Your task to perform on an android device: What's the weather? Image 0: 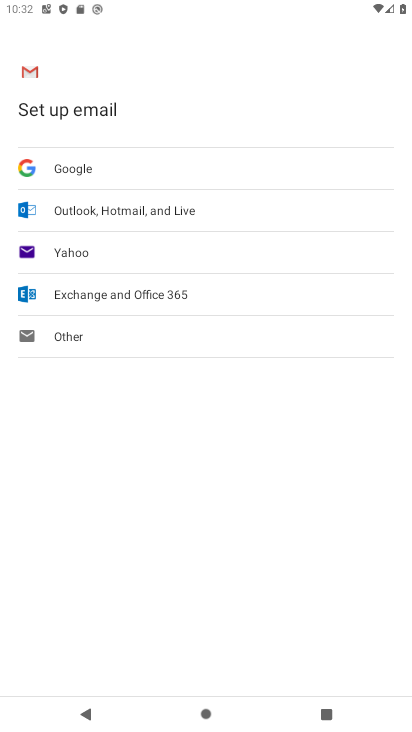
Step 0: press home button
Your task to perform on an android device: What's the weather? Image 1: 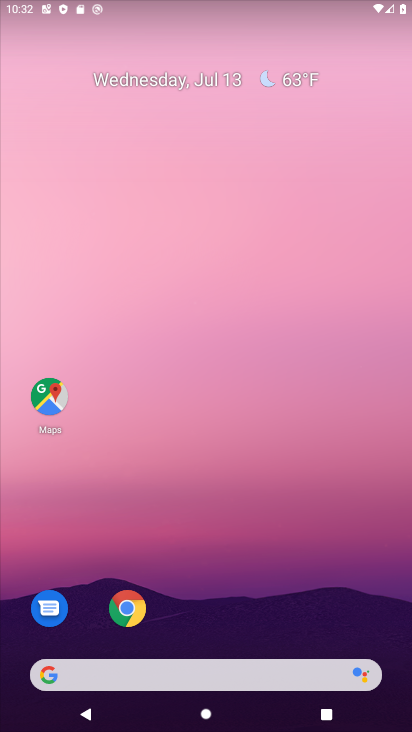
Step 1: drag from (314, 634) to (411, 188)
Your task to perform on an android device: What's the weather? Image 2: 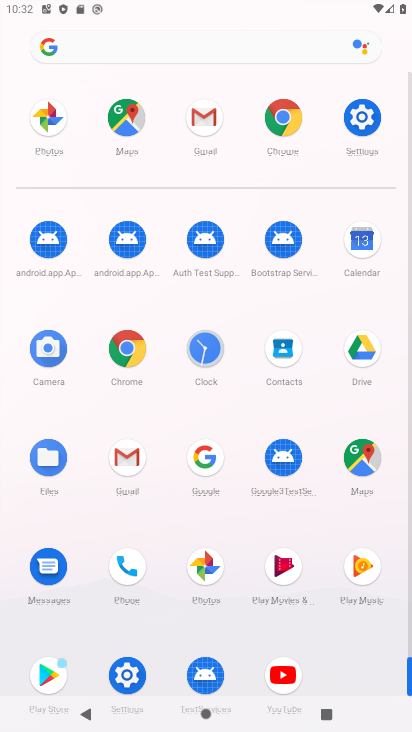
Step 2: click (139, 123)
Your task to perform on an android device: What's the weather? Image 3: 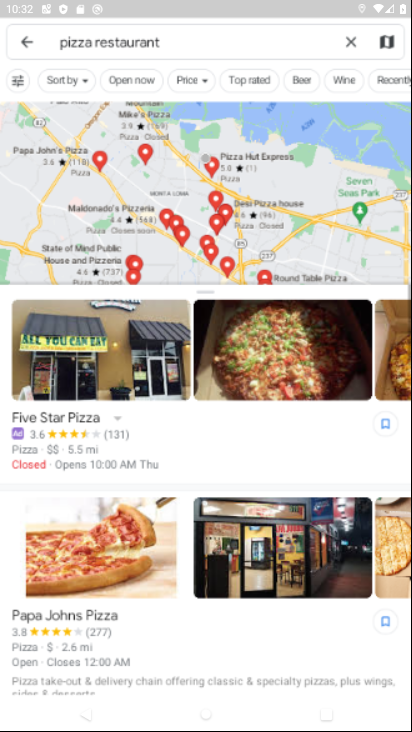
Step 3: press back button
Your task to perform on an android device: What's the weather? Image 4: 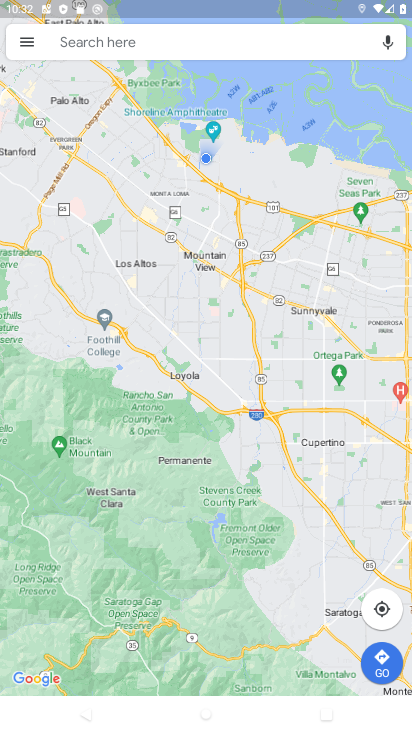
Step 4: press back button
Your task to perform on an android device: What's the weather? Image 5: 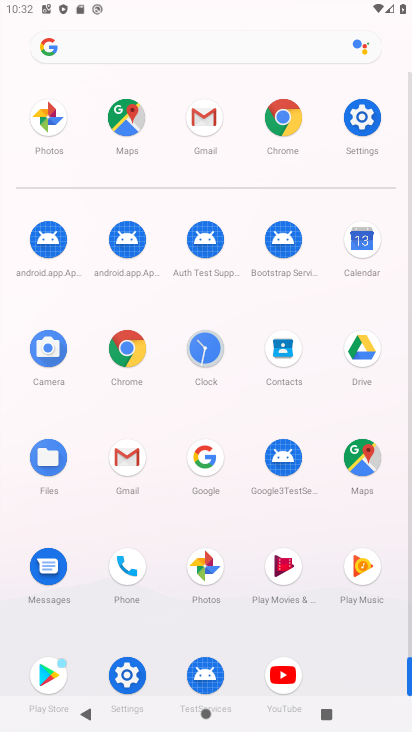
Step 5: click (139, 344)
Your task to perform on an android device: What's the weather? Image 6: 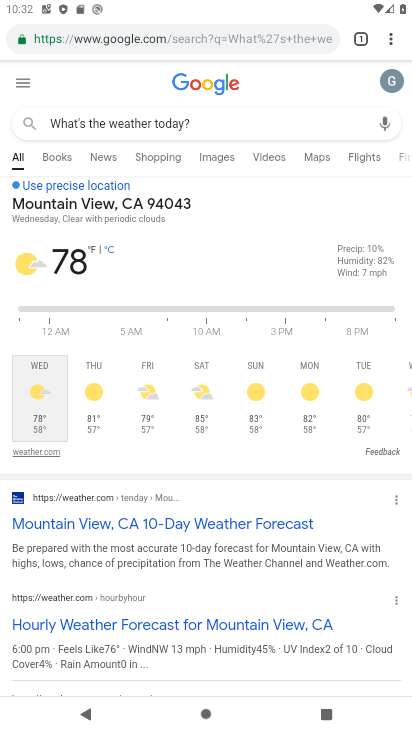
Step 6: click (287, 39)
Your task to perform on an android device: What's the weather? Image 7: 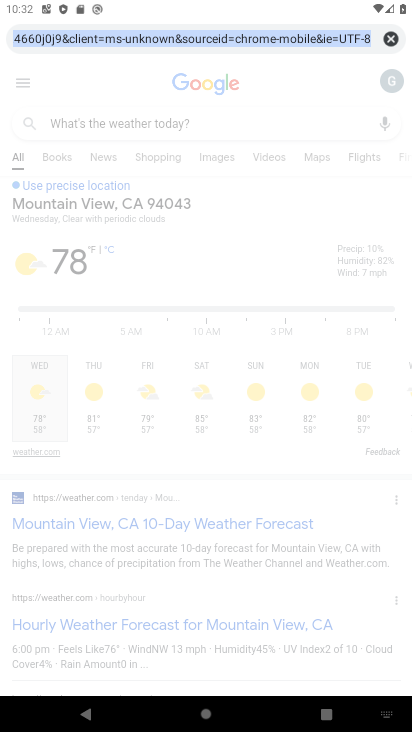
Step 7: click (389, 34)
Your task to perform on an android device: What's the weather? Image 8: 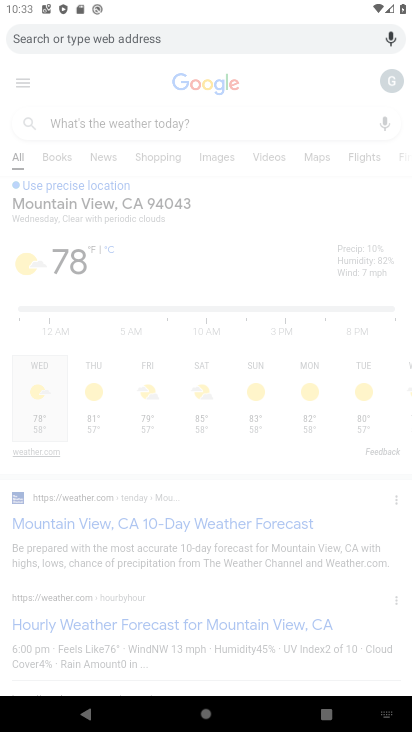
Step 8: type "What's the weather?"
Your task to perform on an android device: What's the weather? Image 9: 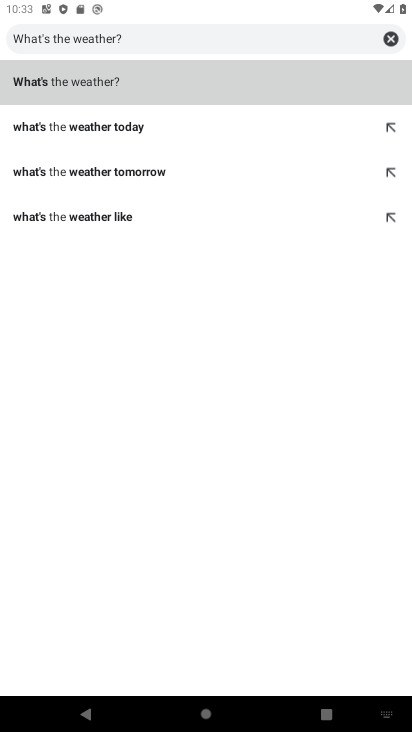
Step 9: click (73, 83)
Your task to perform on an android device: What's the weather? Image 10: 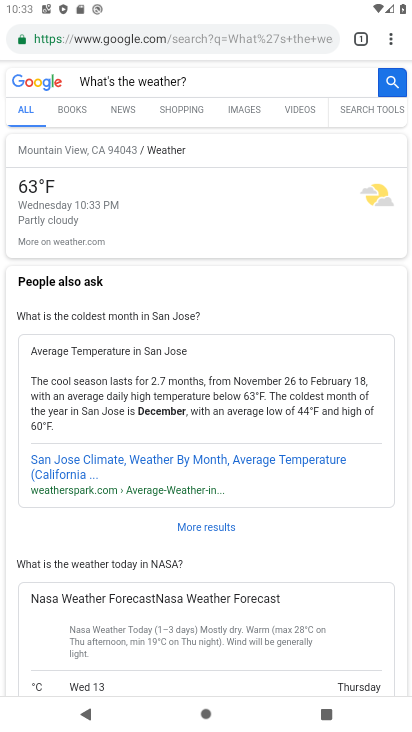
Step 10: task complete